Your task to perform on an android device: Open Reddit.com Image 0: 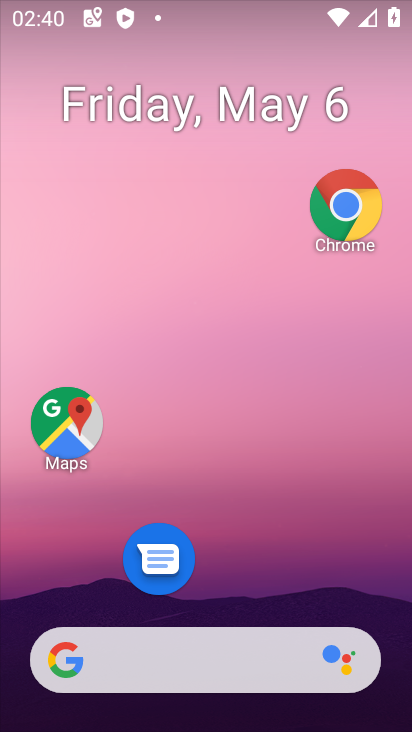
Step 0: drag from (190, 665) to (320, 62)
Your task to perform on an android device: Open Reddit.com Image 1: 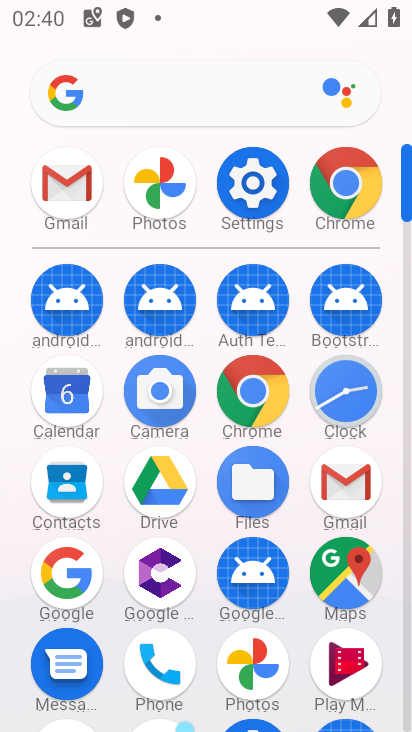
Step 1: click (326, 203)
Your task to perform on an android device: Open Reddit.com Image 2: 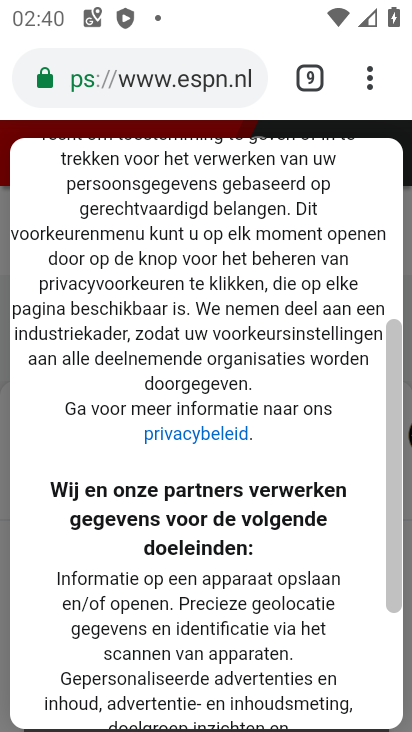
Step 2: drag from (367, 88) to (210, 151)
Your task to perform on an android device: Open Reddit.com Image 3: 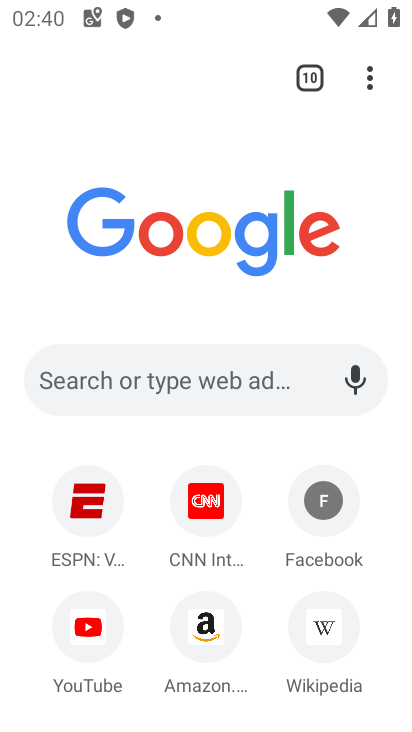
Step 3: click (59, 372)
Your task to perform on an android device: Open Reddit.com Image 4: 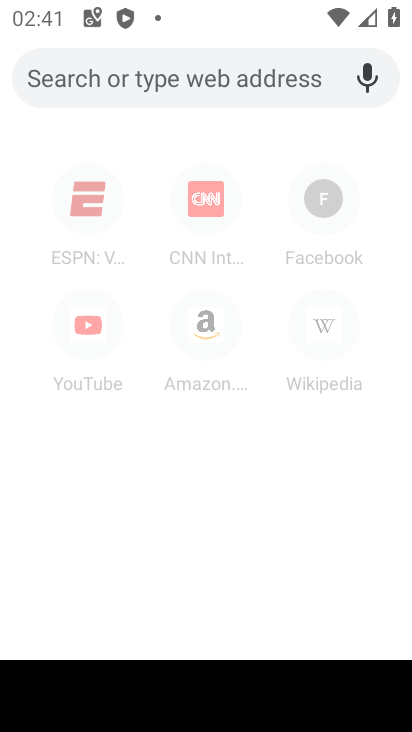
Step 4: type "reddit.com"
Your task to perform on an android device: Open Reddit.com Image 5: 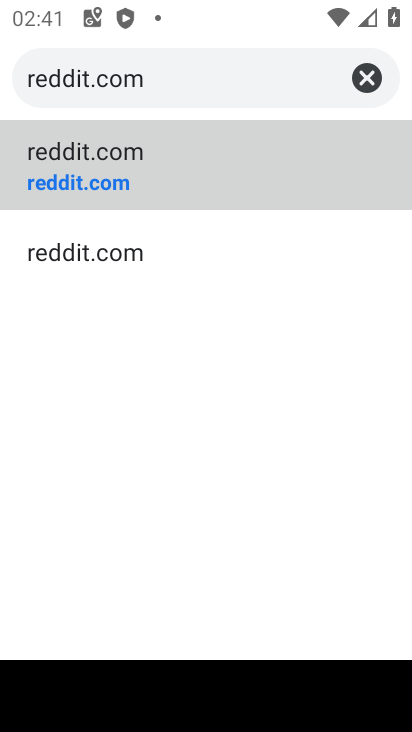
Step 5: click (128, 176)
Your task to perform on an android device: Open Reddit.com Image 6: 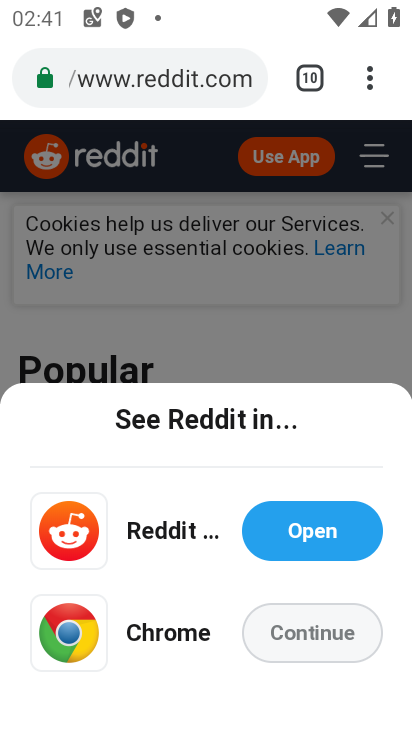
Step 6: click (292, 542)
Your task to perform on an android device: Open Reddit.com Image 7: 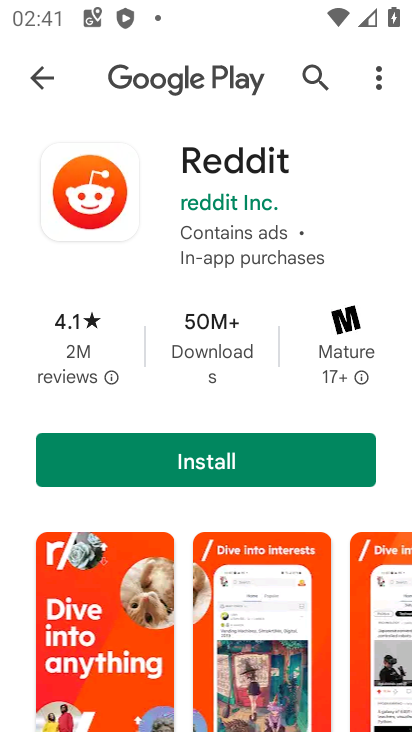
Step 7: click (114, 194)
Your task to perform on an android device: Open Reddit.com Image 8: 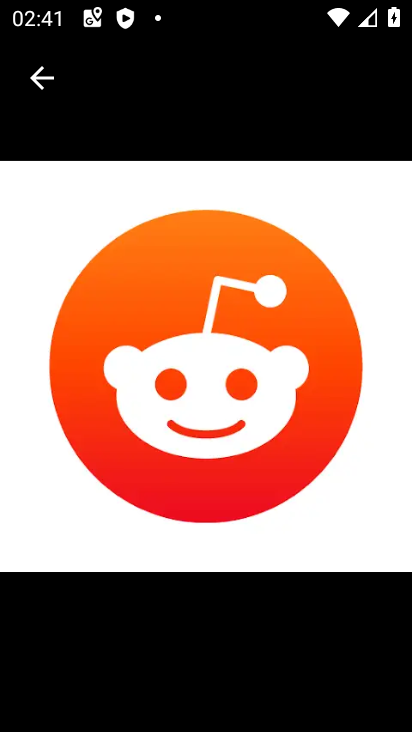
Step 8: click (49, 85)
Your task to perform on an android device: Open Reddit.com Image 9: 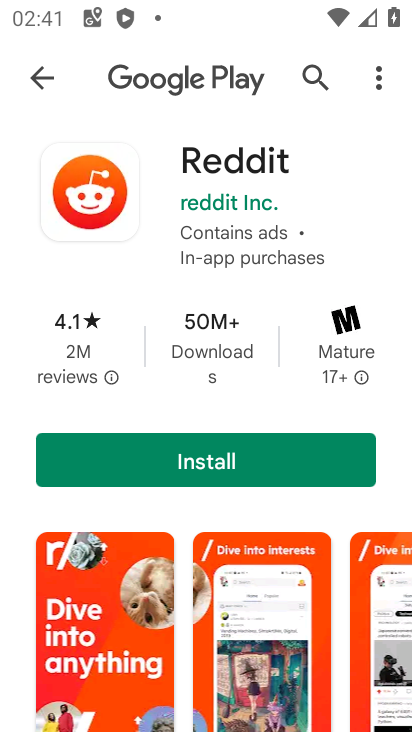
Step 9: task complete